Your task to perform on an android device: delete browsing data in the chrome app Image 0: 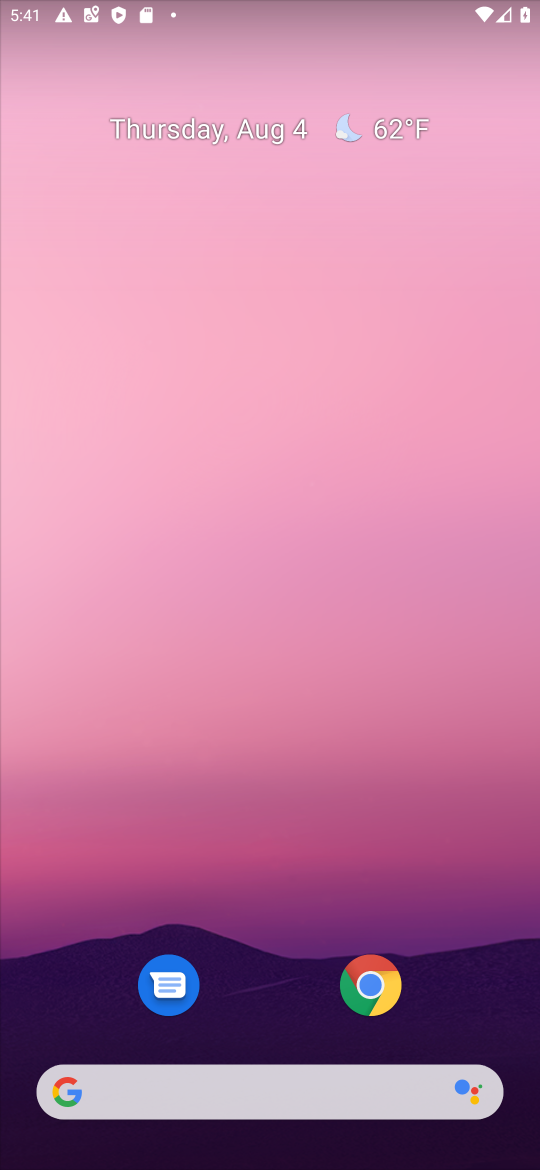
Step 0: click (391, 1001)
Your task to perform on an android device: delete browsing data in the chrome app Image 1: 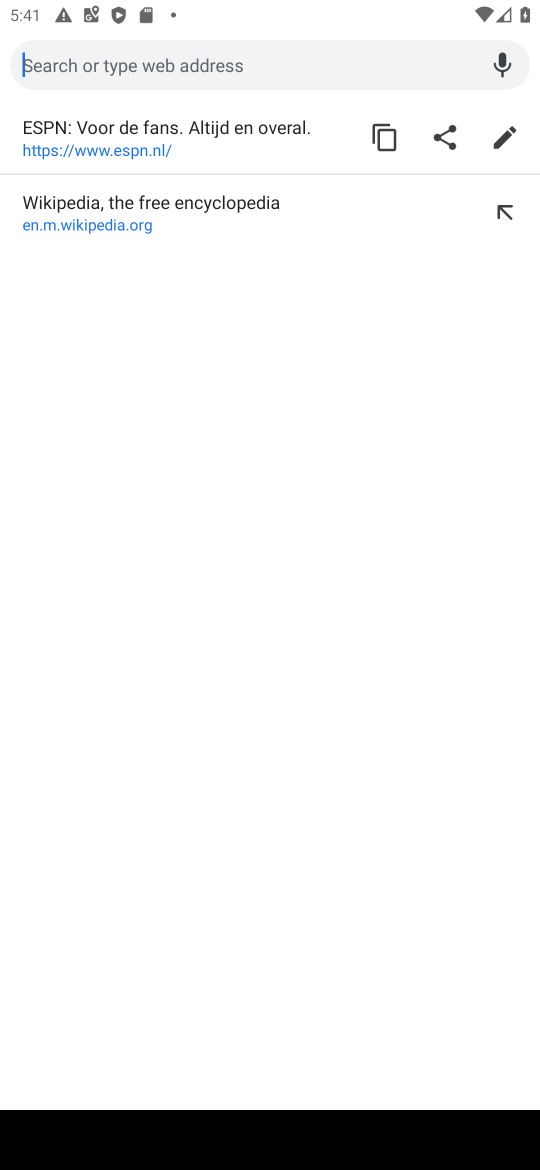
Step 1: press back button
Your task to perform on an android device: delete browsing data in the chrome app Image 2: 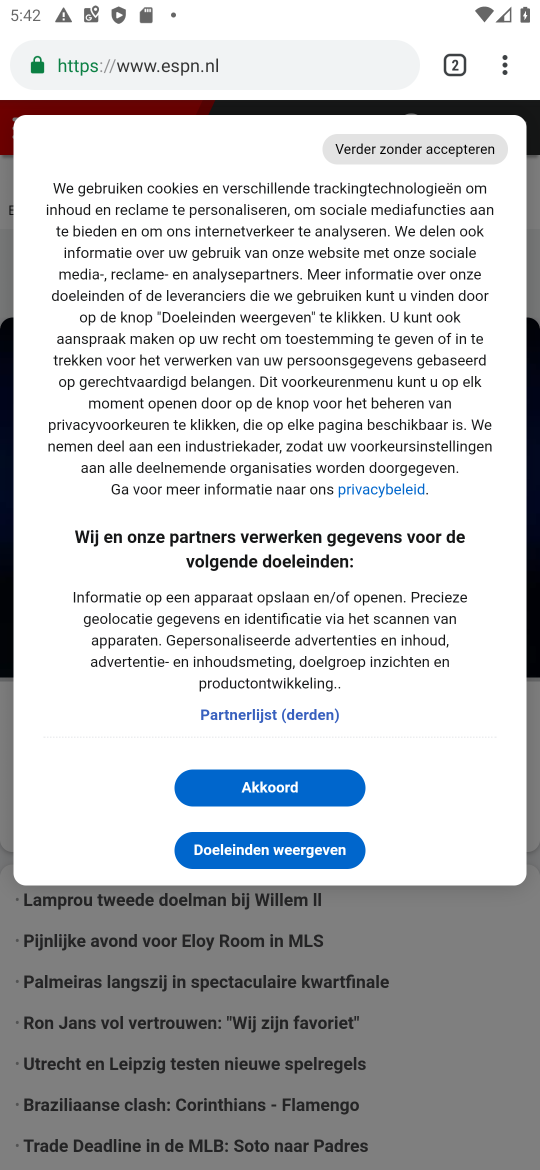
Step 2: drag from (518, 53) to (262, 434)
Your task to perform on an android device: delete browsing data in the chrome app Image 3: 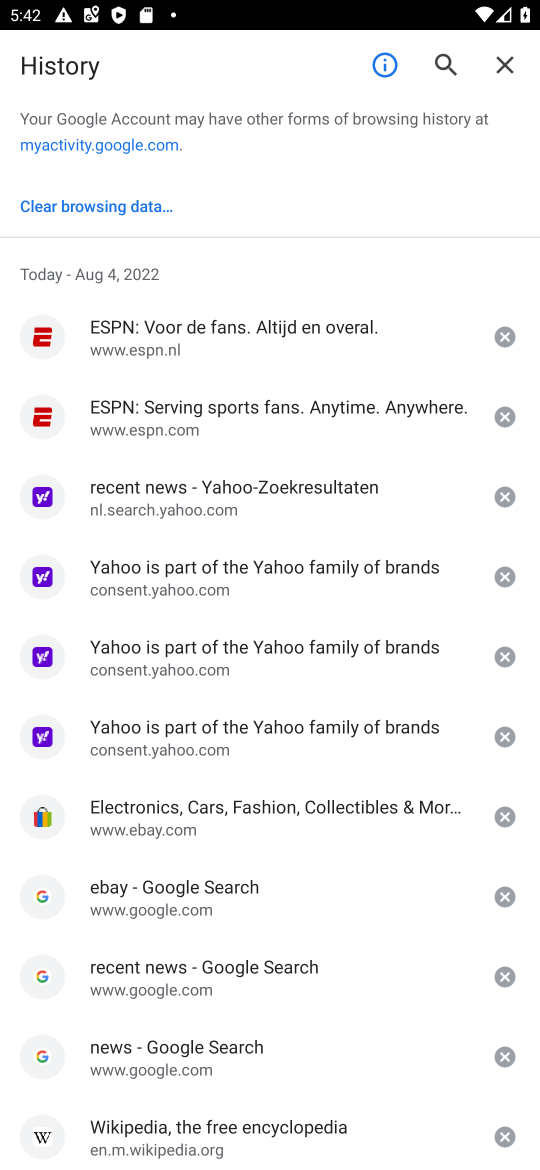
Step 3: click (83, 201)
Your task to perform on an android device: delete browsing data in the chrome app Image 4: 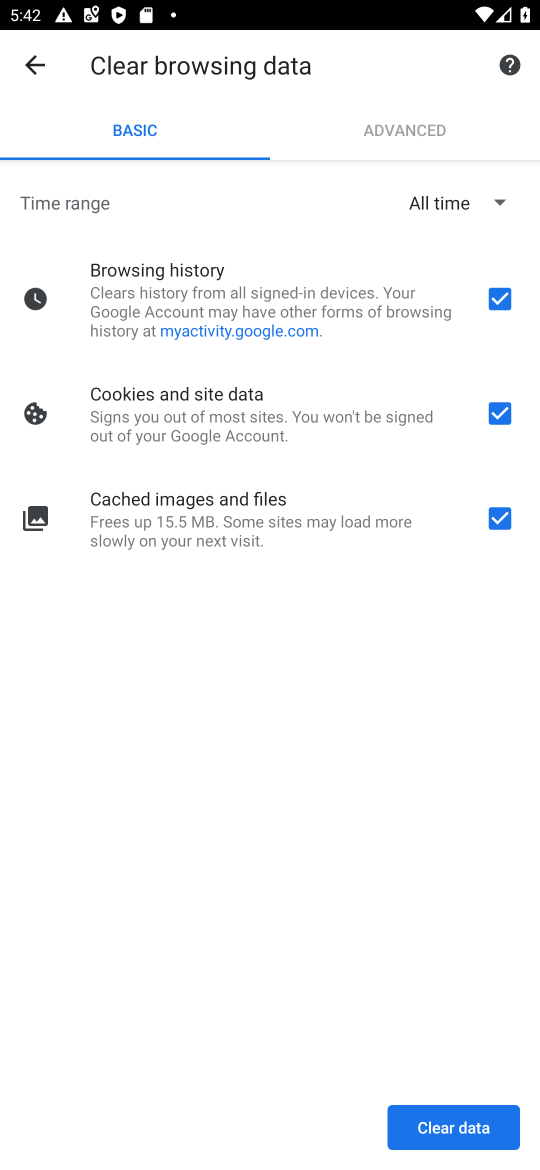
Step 4: click (455, 1140)
Your task to perform on an android device: delete browsing data in the chrome app Image 5: 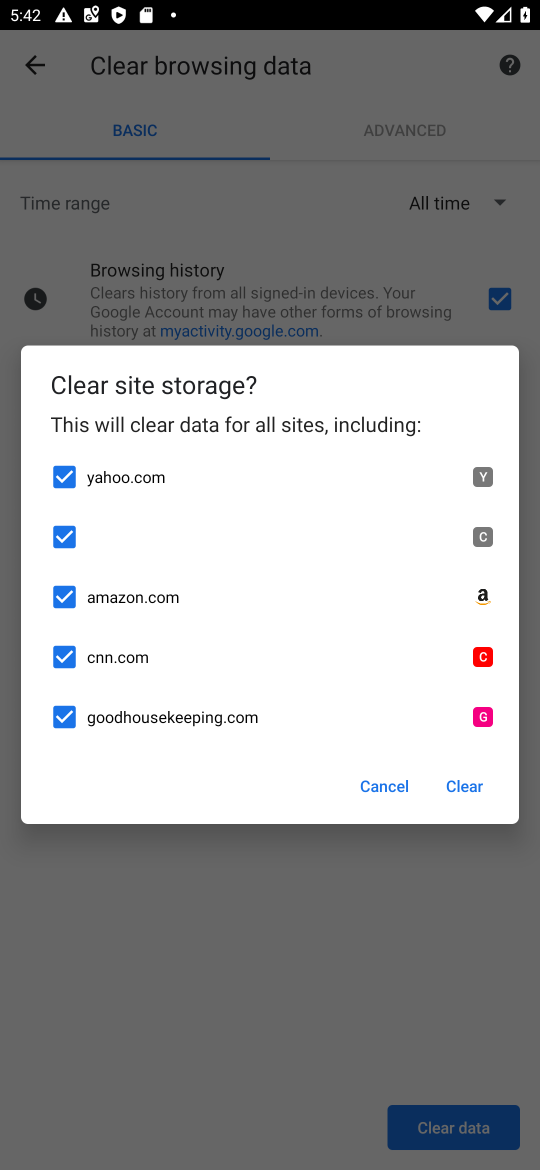
Step 5: click (464, 792)
Your task to perform on an android device: delete browsing data in the chrome app Image 6: 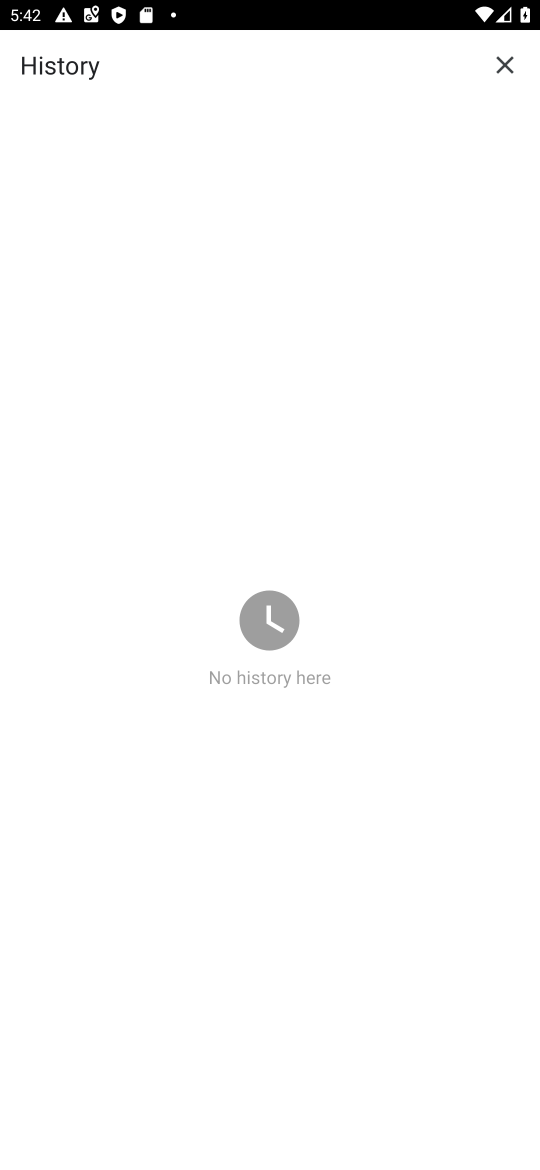
Step 6: task complete